Your task to perform on an android device: Open Google Maps and go to "Timeline" Image 0: 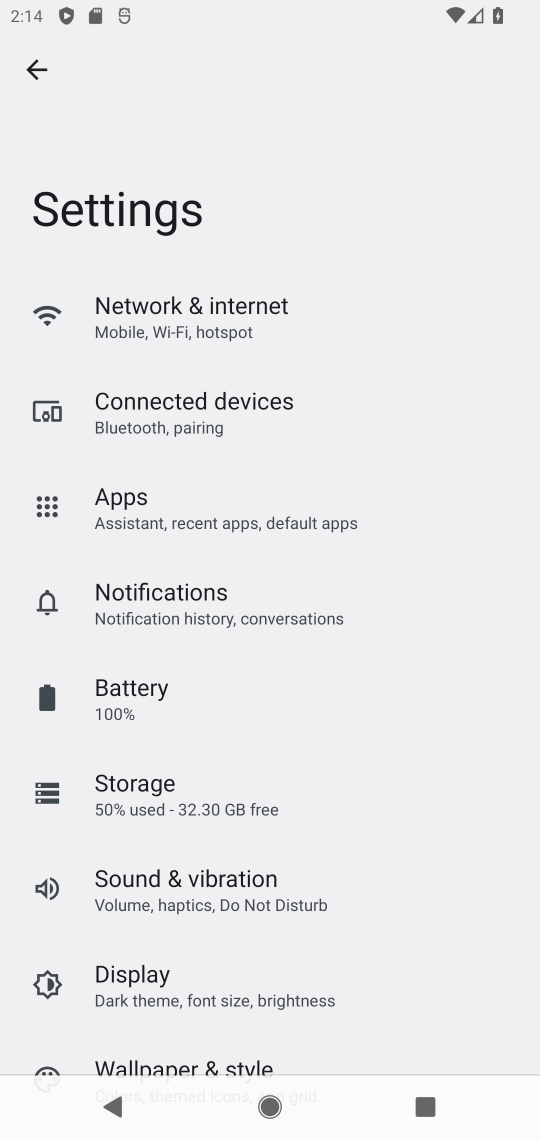
Step 0: press home button
Your task to perform on an android device: Open Google Maps and go to "Timeline" Image 1: 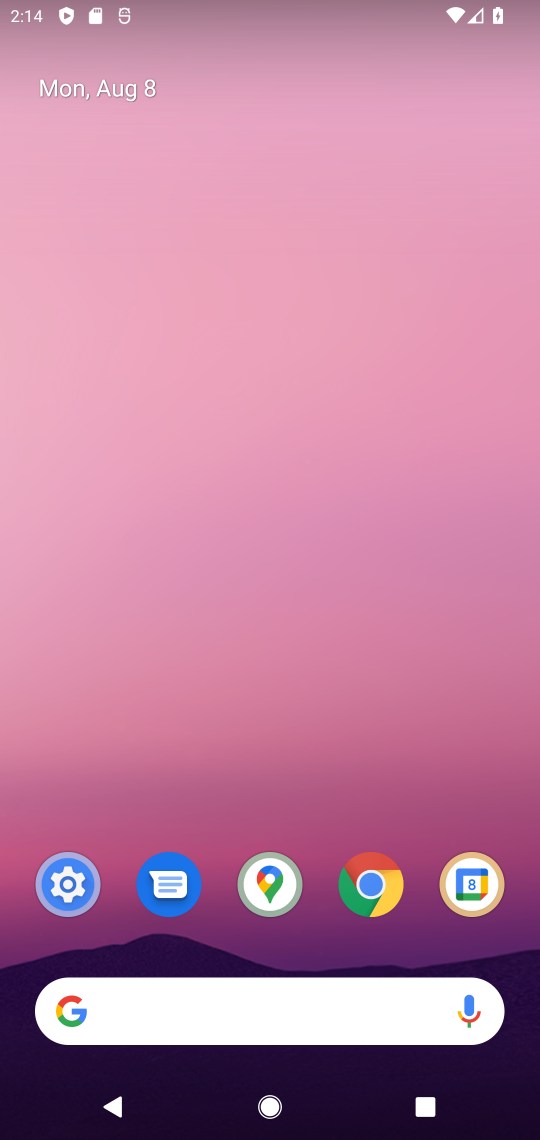
Step 1: click (267, 886)
Your task to perform on an android device: Open Google Maps and go to "Timeline" Image 2: 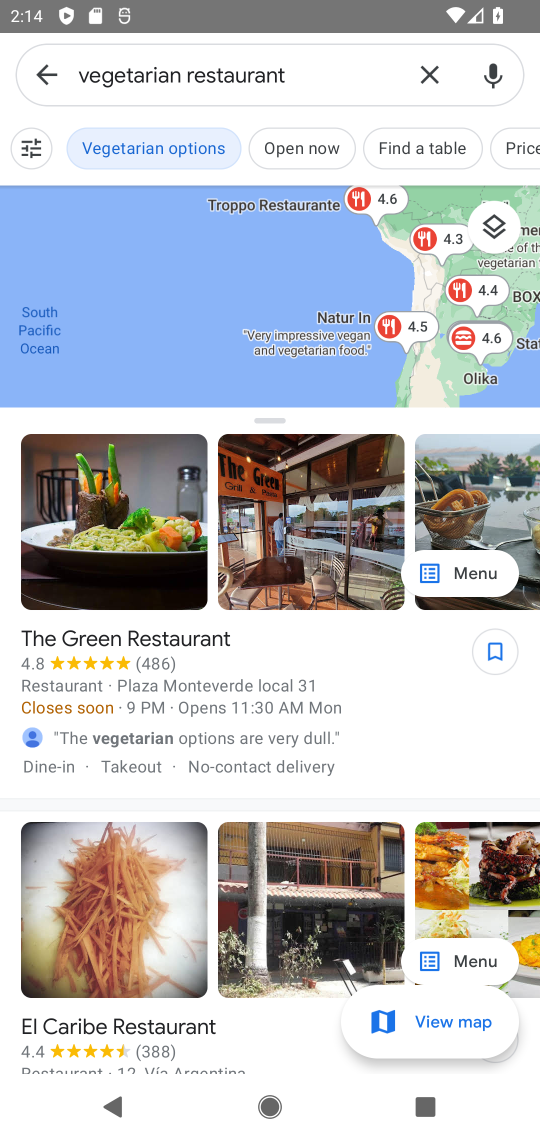
Step 2: click (430, 77)
Your task to perform on an android device: Open Google Maps and go to "Timeline" Image 3: 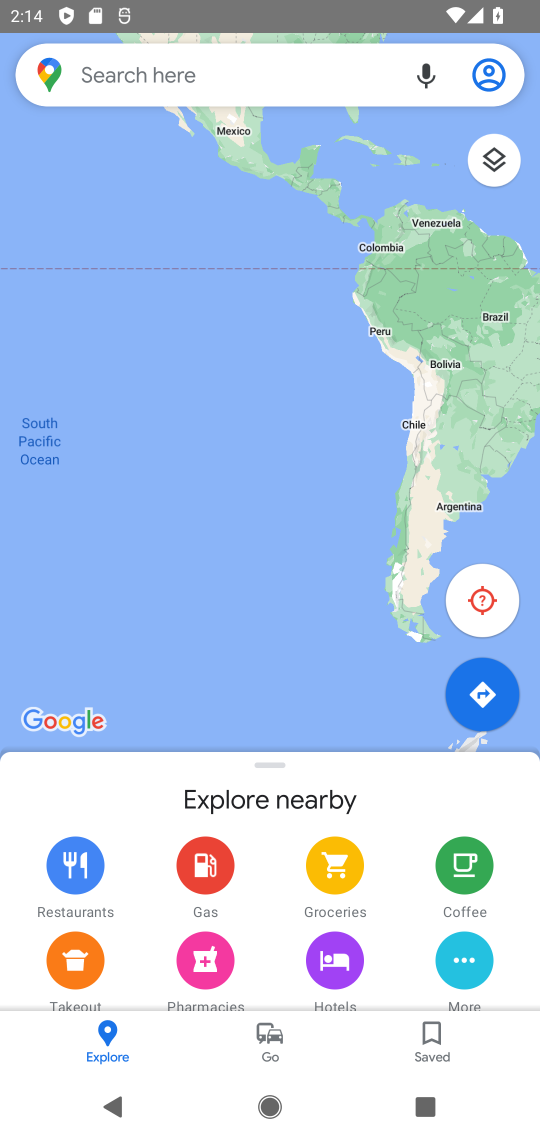
Step 3: click (36, 59)
Your task to perform on an android device: Open Google Maps and go to "Timeline" Image 4: 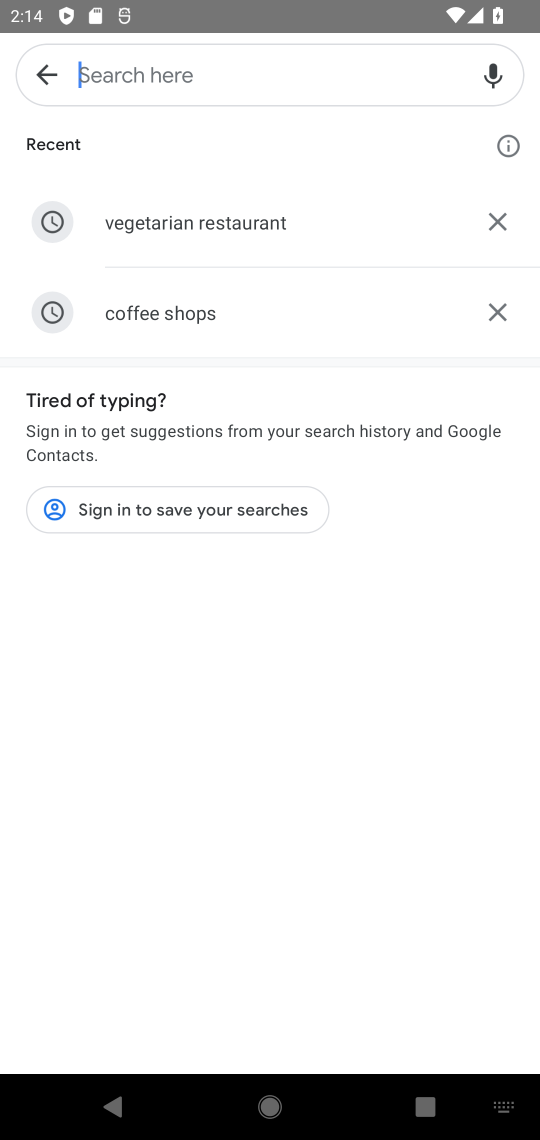
Step 4: click (32, 72)
Your task to perform on an android device: Open Google Maps and go to "Timeline" Image 5: 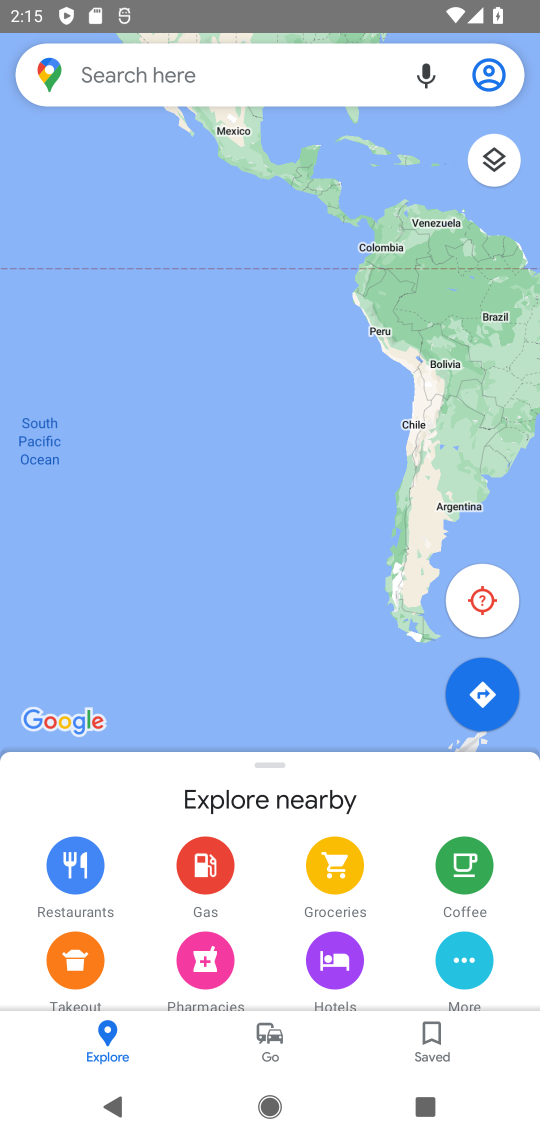
Step 5: click (496, 68)
Your task to perform on an android device: Open Google Maps and go to "Timeline" Image 6: 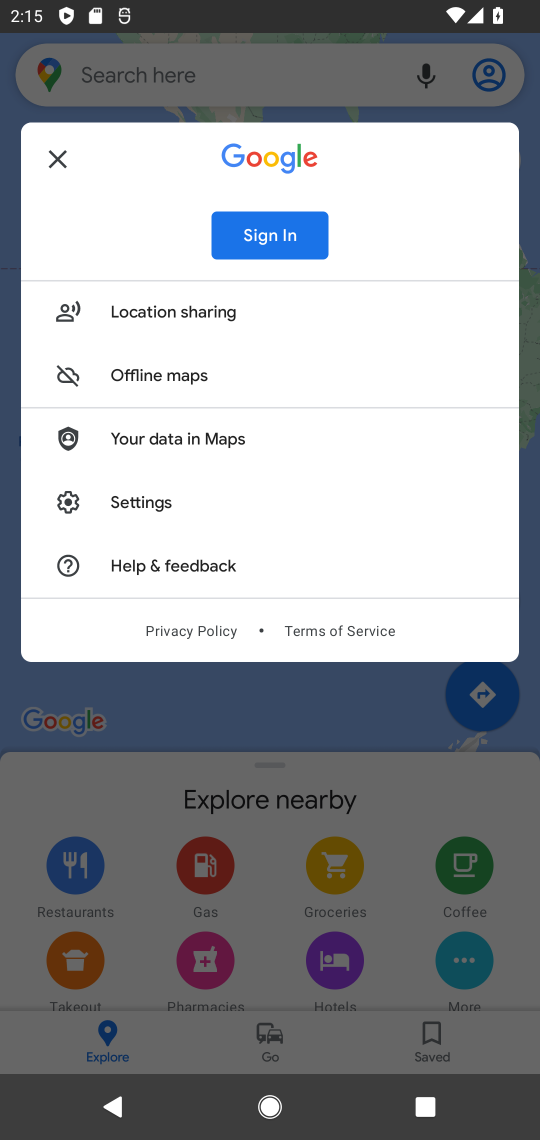
Step 6: click (233, 709)
Your task to perform on an android device: Open Google Maps and go to "Timeline" Image 7: 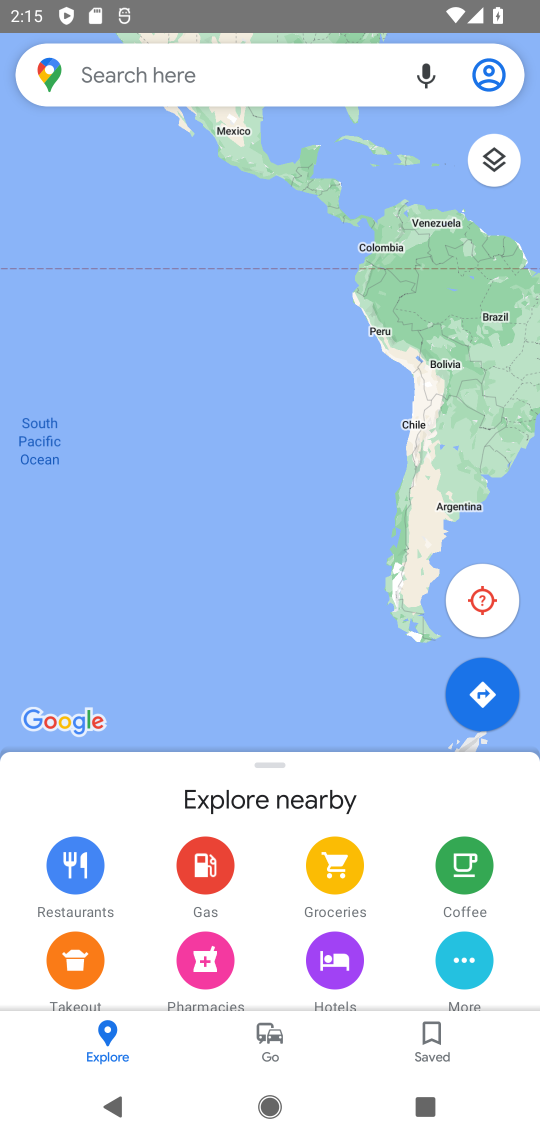
Step 7: click (467, 948)
Your task to perform on an android device: Open Google Maps and go to "Timeline" Image 8: 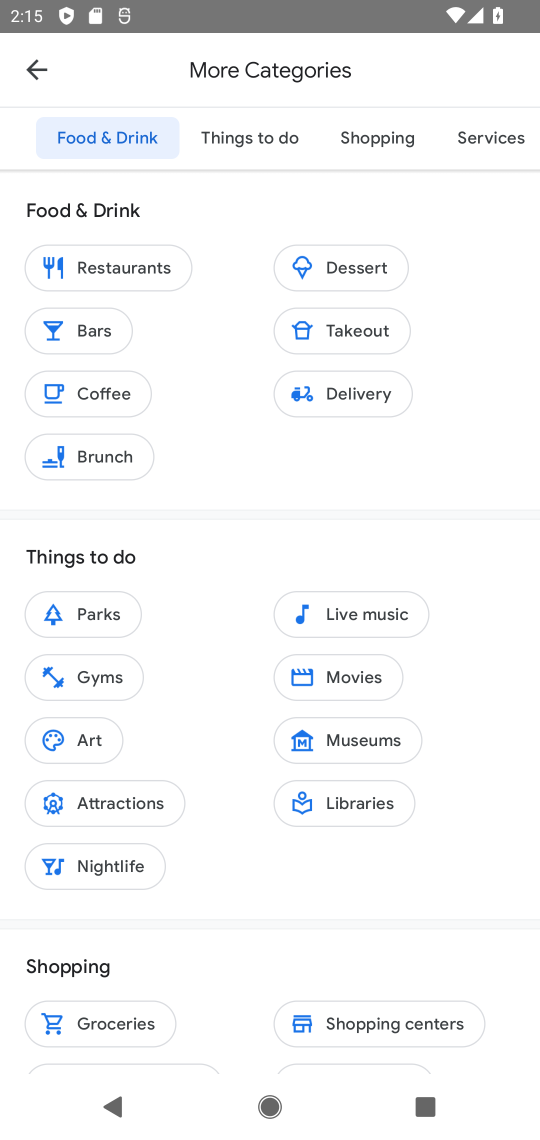
Step 8: task complete